Your task to perform on an android device: What's on my calendar today? Image 0: 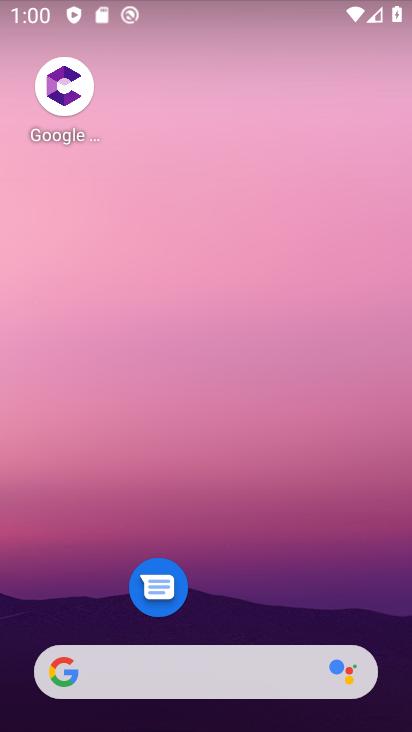
Step 0: drag from (255, 641) to (284, 249)
Your task to perform on an android device: What's on my calendar today? Image 1: 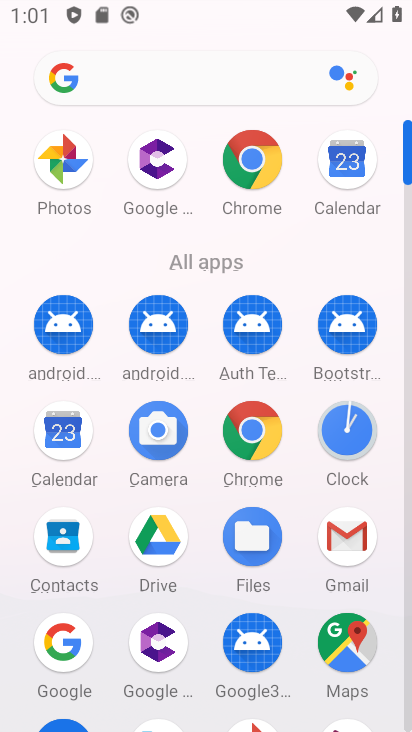
Step 1: click (56, 442)
Your task to perform on an android device: What's on my calendar today? Image 2: 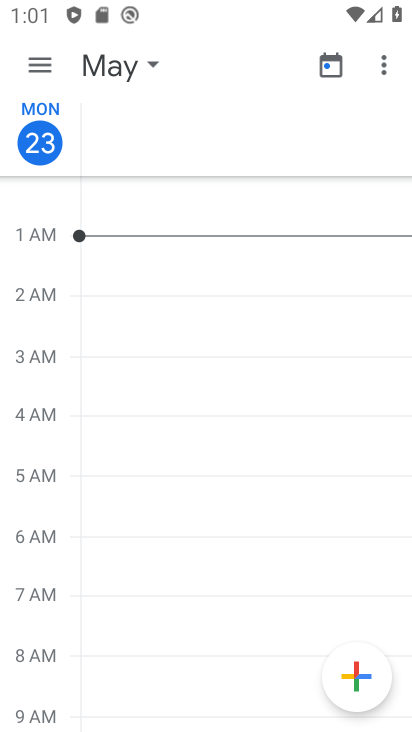
Step 2: task complete